Your task to perform on an android device: Open sound settings Image 0: 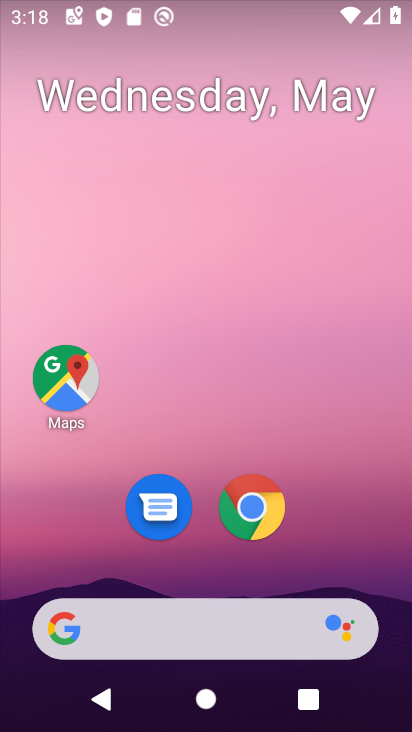
Step 0: drag from (166, 546) to (278, 25)
Your task to perform on an android device: Open sound settings Image 1: 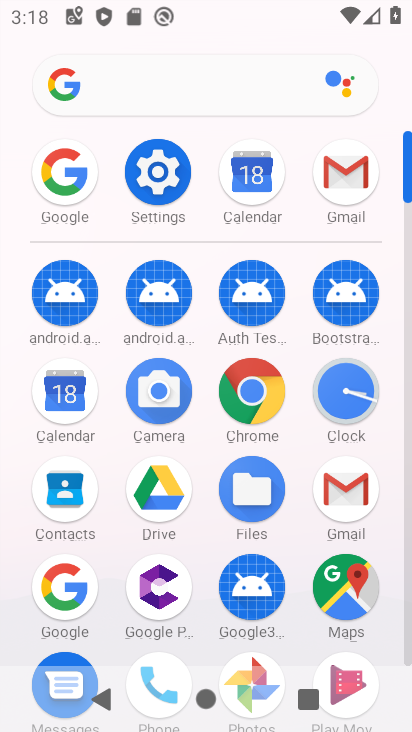
Step 1: click (172, 163)
Your task to perform on an android device: Open sound settings Image 2: 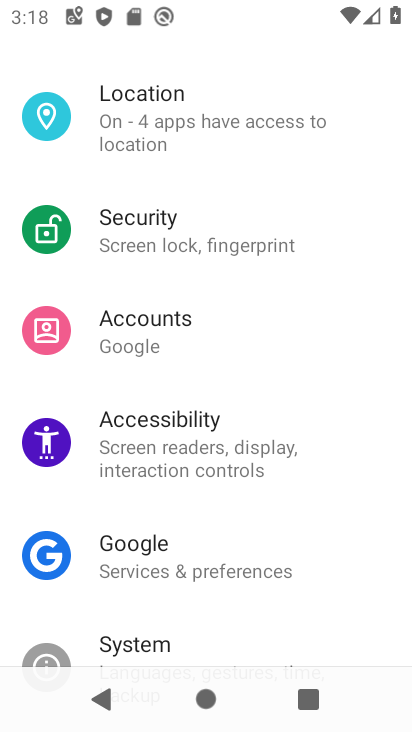
Step 2: drag from (150, 533) to (271, 52)
Your task to perform on an android device: Open sound settings Image 3: 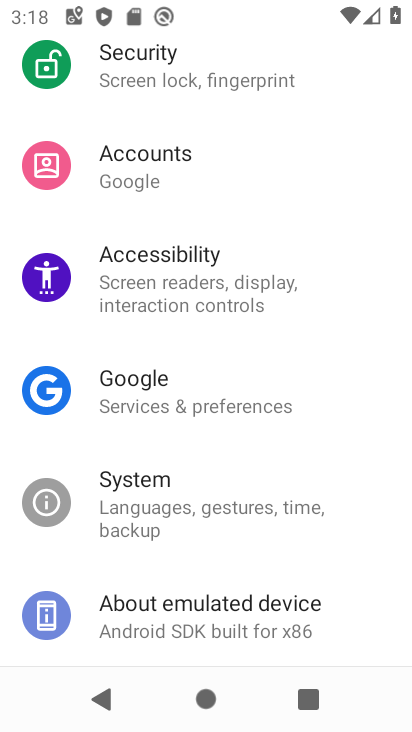
Step 3: drag from (157, 220) to (147, 682)
Your task to perform on an android device: Open sound settings Image 4: 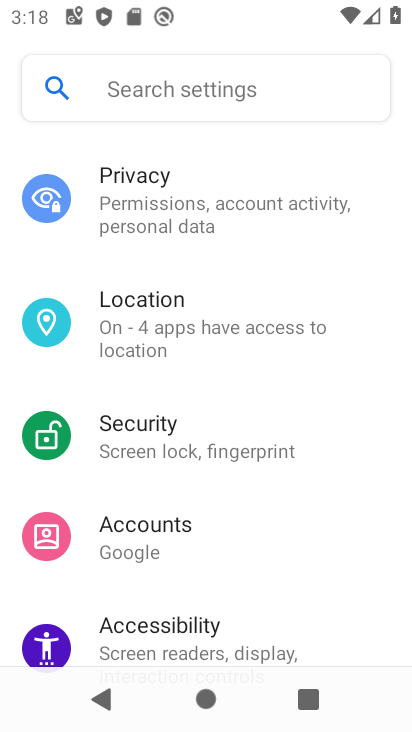
Step 4: drag from (184, 235) to (192, 619)
Your task to perform on an android device: Open sound settings Image 5: 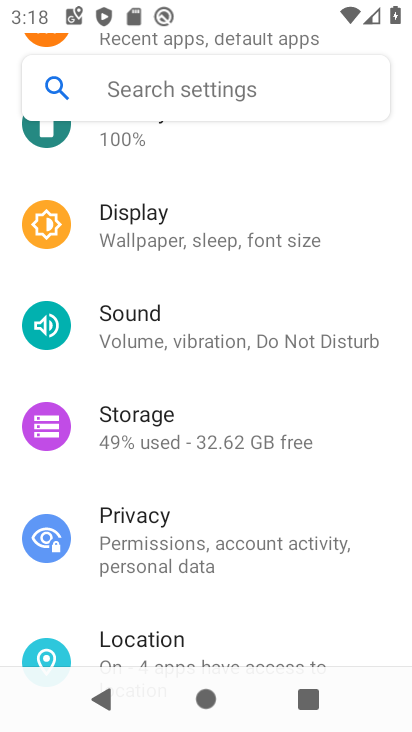
Step 5: click (124, 342)
Your task to perform on an android device: Open sound settings Image 6: 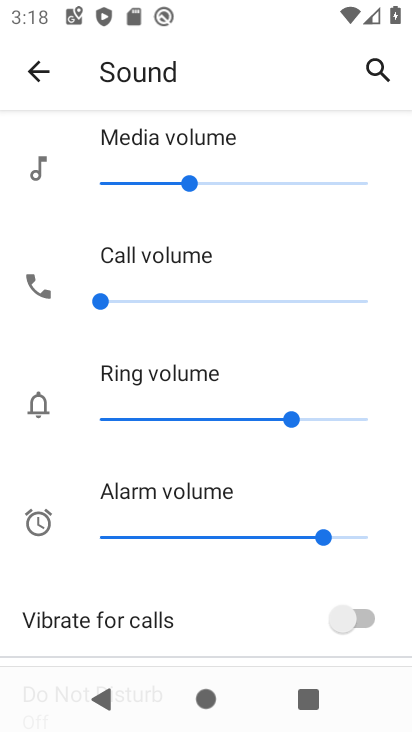
Step 6: task complete